Your task to perform on an android device: Find coffee shops on Maps Image 0: 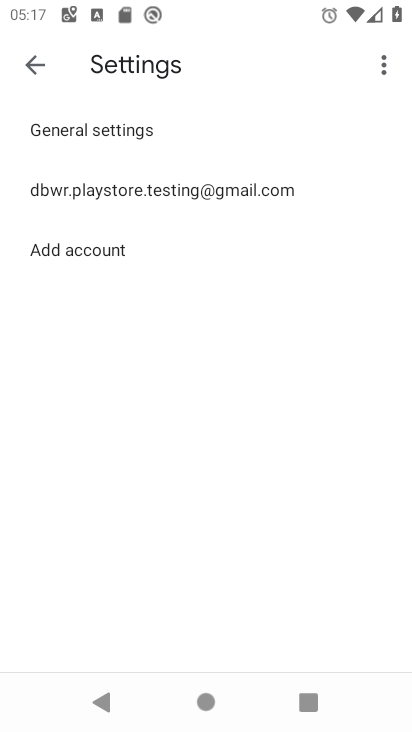
Step 0: press home button
Your task to perform on an android device: Find coffee shops on Maps Image 1: 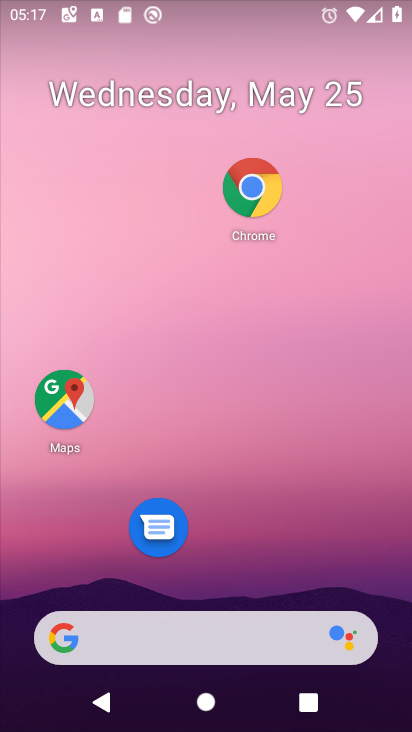
Step 1: drag from (253, 549) to (222, 165)
Your task to perform on an android device: Find coffee shops on Maps Image 2: 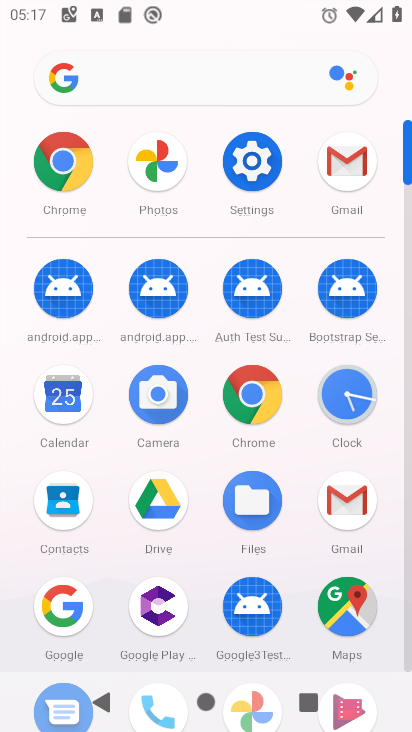
Step 2: click (353, 612)
Your task to perform on an android device: Find coffee shops on Maps Image 3: 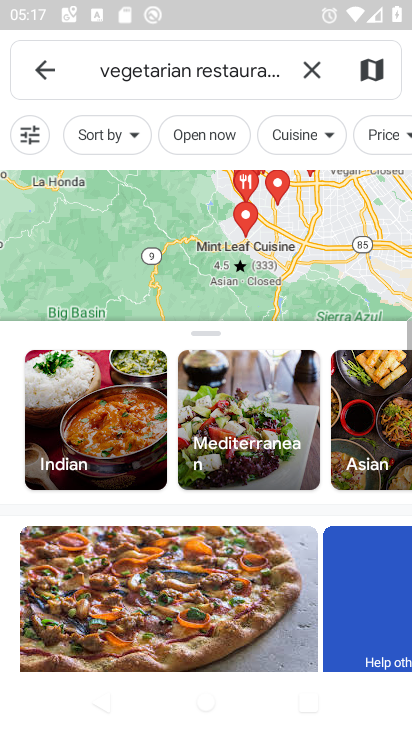
Step 3: click (313, 71)
Your task to perform on an android device: Find coffee shops on Maps Image 4: 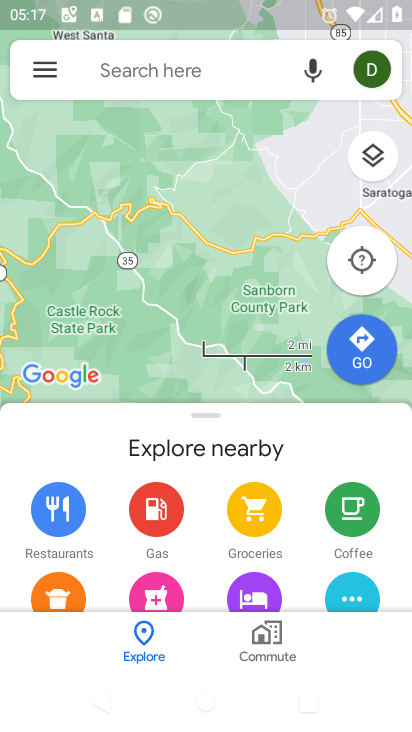
Step 4: click (186, 71)
Your task to perform on an android device: Find coffee shops on Maps Image 5: 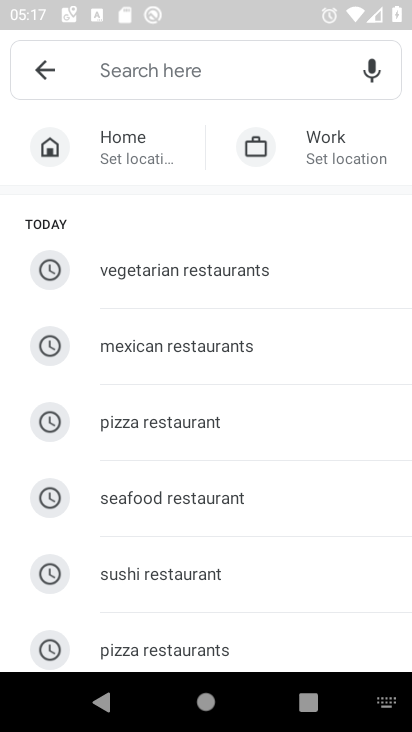
Step 5: type "coffee shop"
Your task to perform on an android device: Find coffee shops on Maps Image 6: 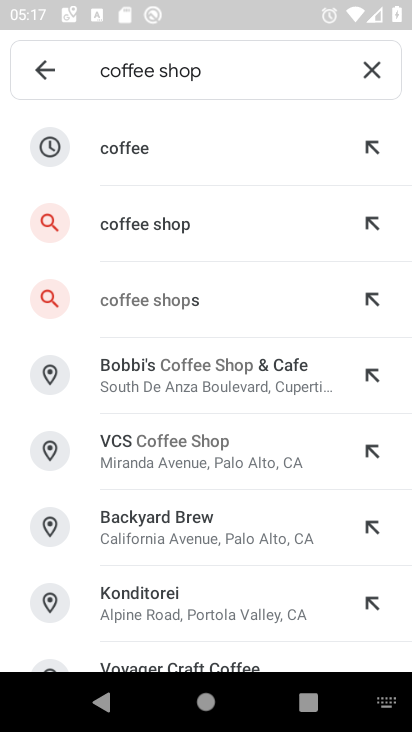
Step 6: click (187, 225)
Your task to perform on an android device: Find coffee shops on Maps Image 7: 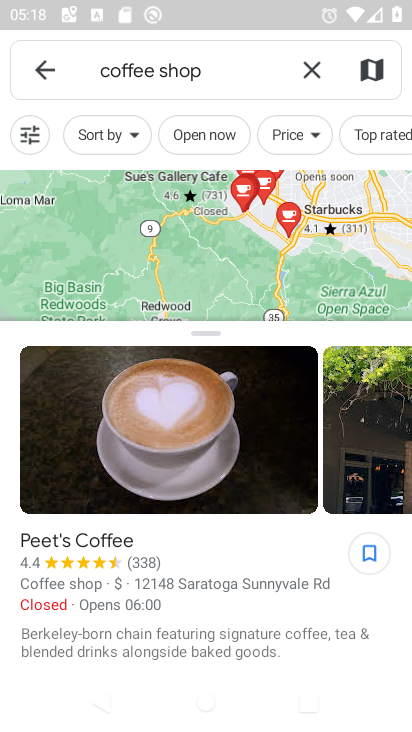
Step 7: task complete